Your task to perform on an android device: Go to display settings Image 0: 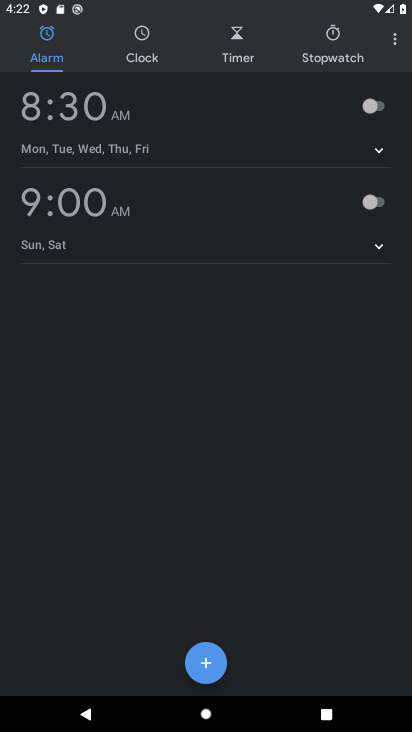
Step 0: press home button
Your task to perform on an android device: Go to display settings Image 1: 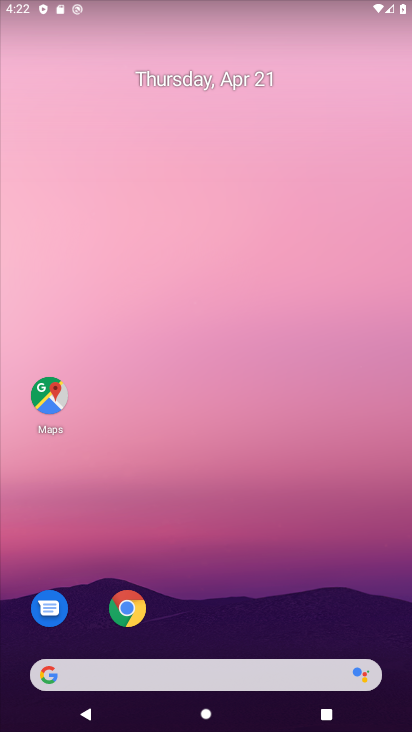
Step 1: drag from (280, 406) to (249, 202)
Your task to perform on an android device: Go to display settings Image 2: 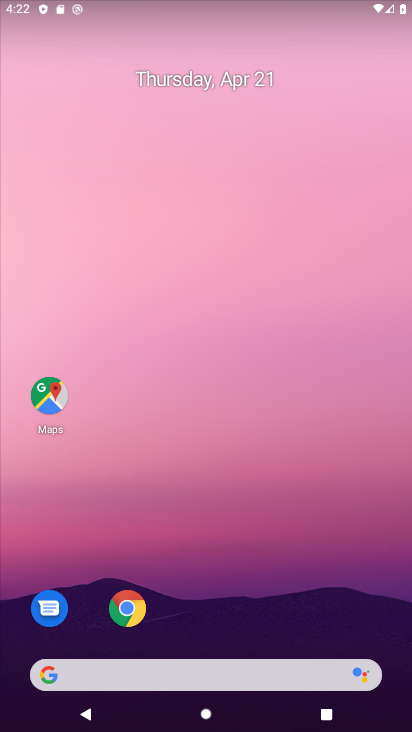
Step 2: drag from (249, 556) to (230, 166)
Your task to perform on an android device: Go to display settings Image 3: 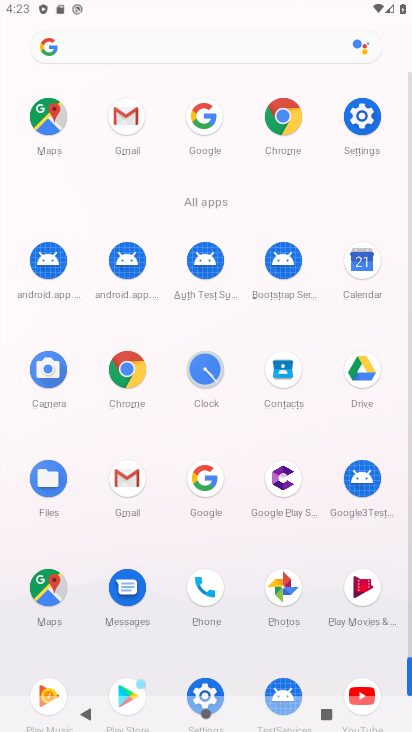
Step 3: click (360, 124)
Your task to perform on an android device: Go to display settings Image 4: 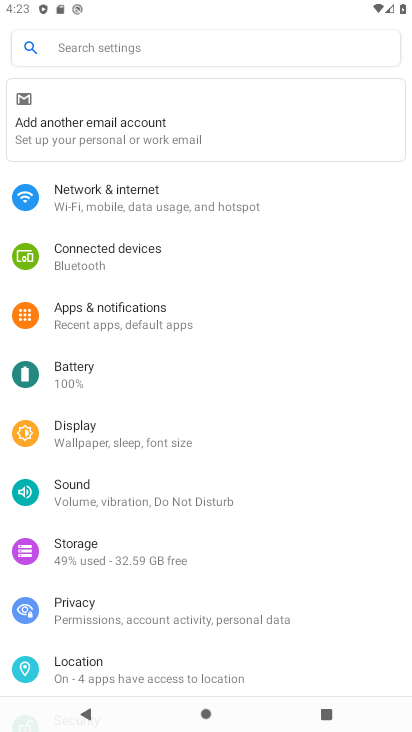
Step 4: click (75, 449)
Your task to perform on an android device: Go to display settings Image 5: 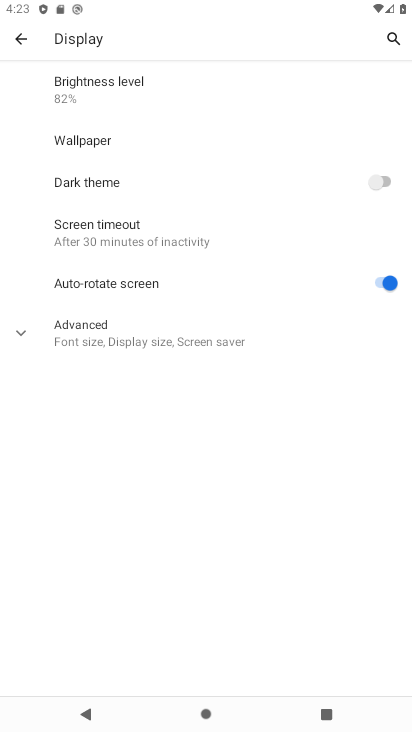
Step 5: task complete